Your task to perform on an android device: Show me recent news Image 0: 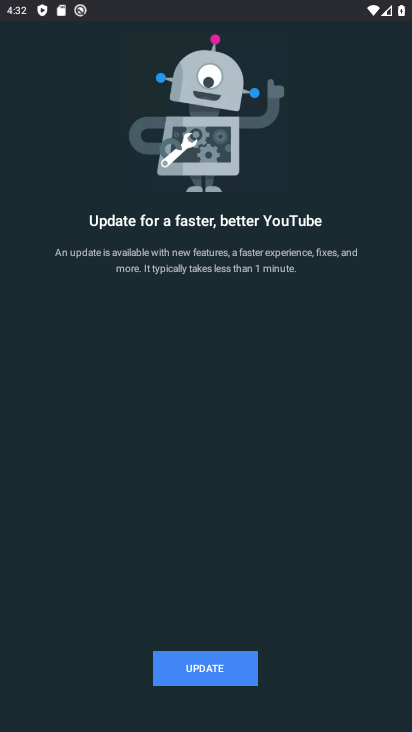
Step 0: press home button
Your task to perform on an android device: Show me recent news Image 1: 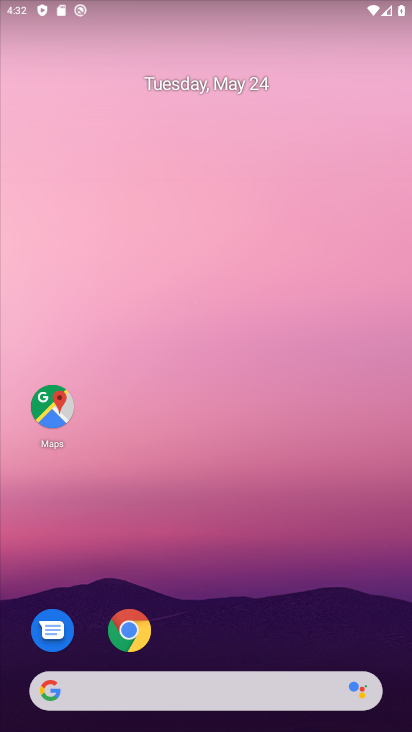
Step 1: click (157, 699)
Your task to perform on an android device: Show me recent news Image 2: 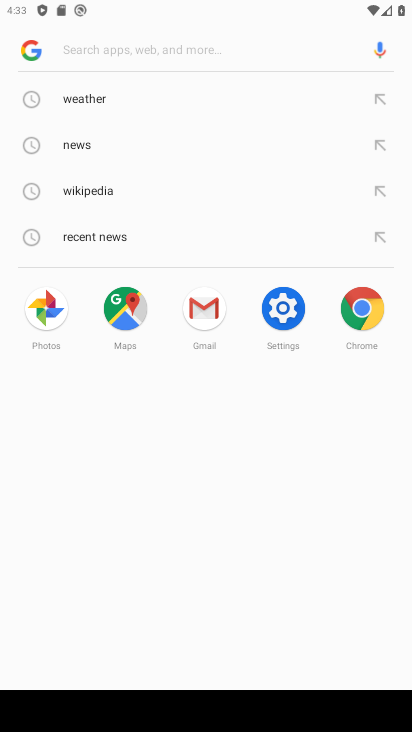
Step 2: click (78, 245)
Your task to perform on an android device: Show me recent news Image 3: 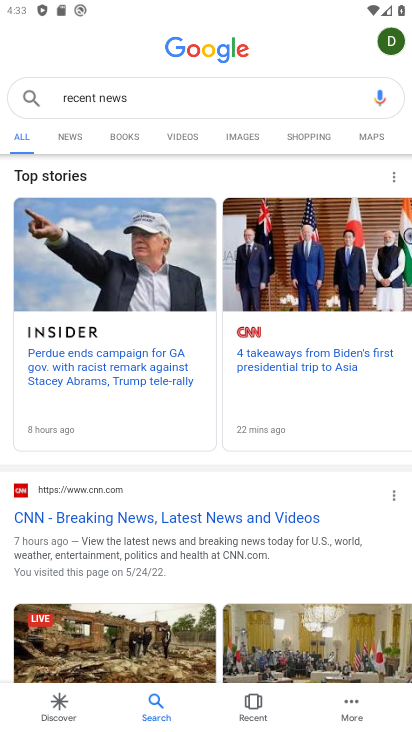
Step 3: task complete